Your task to perform on an android device: Open the calendar and show me this week's events Image 0: 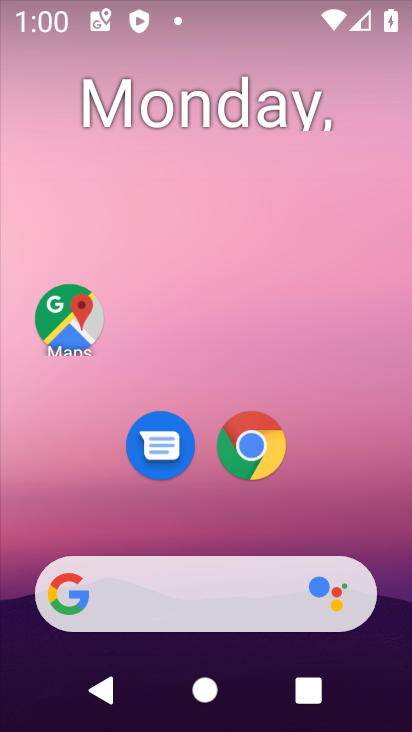
Step 0: drag from (329, 509) to (328, 153)
Your task to perform on an android device: Open the calendar and show me this week's events Image 1: 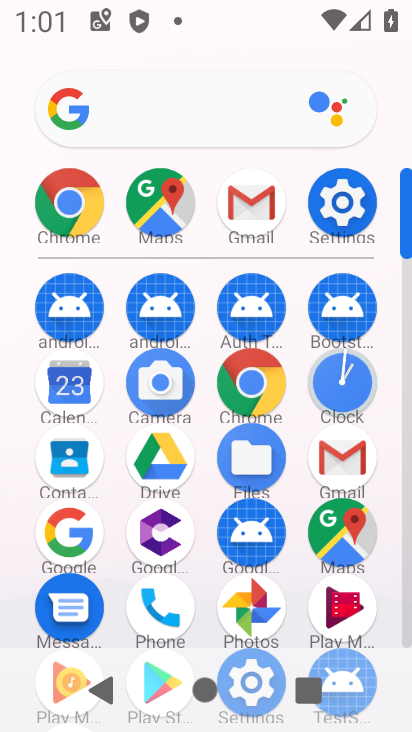
Step 1: click (73, 388)
Your task to perform on an android device: Open the calendar and show me this week's events Image 2: 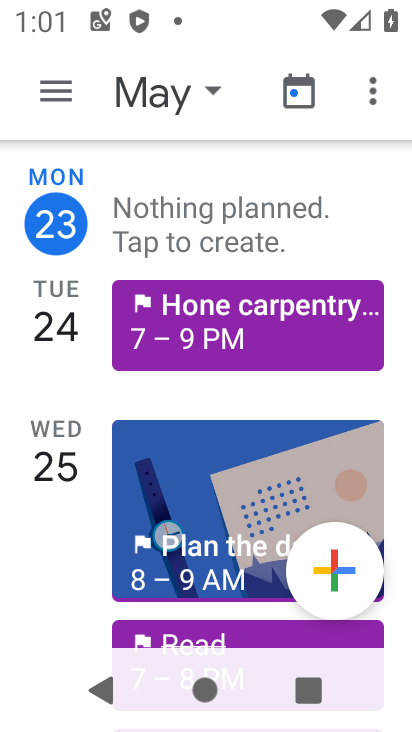
Step 2: drag from (136, 566) to (200, 463)
Your task to perform on an android device: Open the calendar and show me this week's events Image 3: 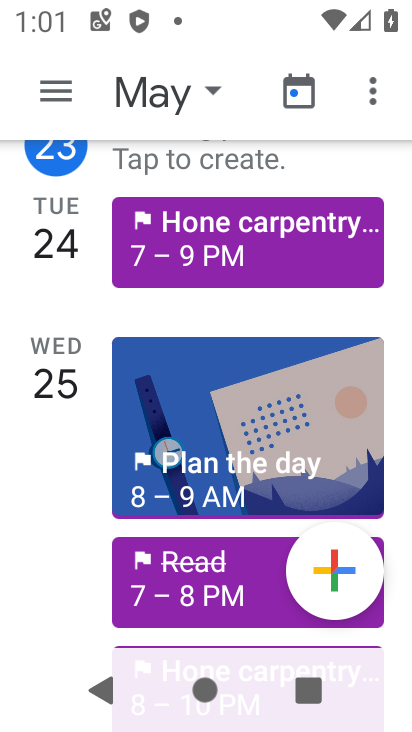
Step 3: drag from (132, 500) to (244, 351)
Your task to perform on an android device: Open the calendar and show me this week's events Image 4: 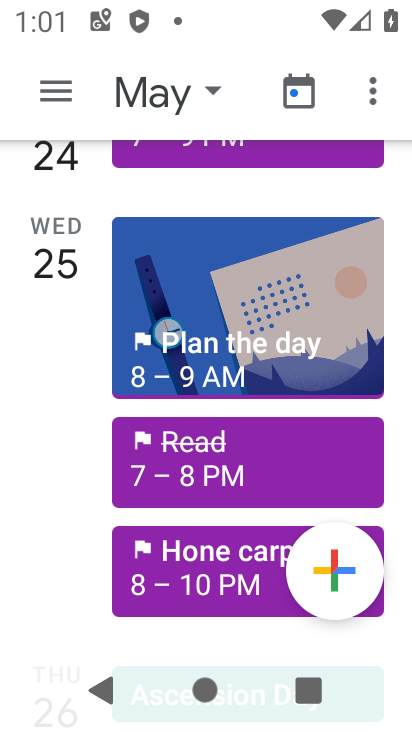
Step 4: drag from (175, 501) to (278, 379)
Your task to perform on an android device: Open the calendar and show me this week's events Image 5: 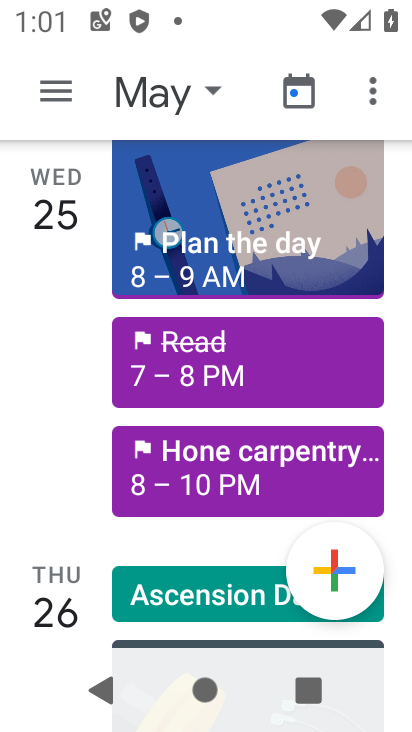
Step 5: drag from (149, 598) to (275, 362)
Your task to perform on an android device: Open the calendar and show me this week's events Image 6: 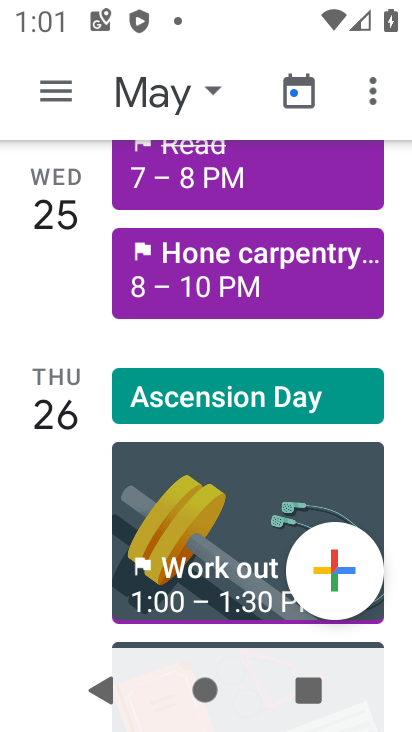
Step 6: drag from (201, 513) to (273, 371)
Your task to perform on an android device: Open the calendar and show me this week's events Image 7: 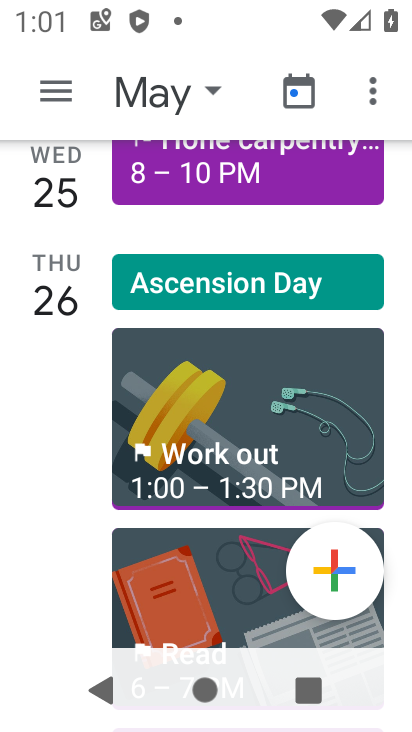
Step 7: drag from (193, 553) to (258, 265)
Your task to perform on an android device: Open the calendar and show me this week's events Image 8: 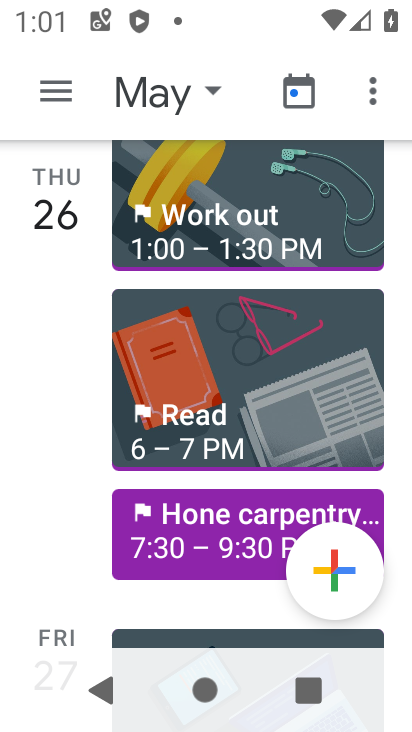
Step 8: drag from (166, 515) to (280, 349)
Your task to perform on an android device: Open the calendar and show me this week's events Image 9: 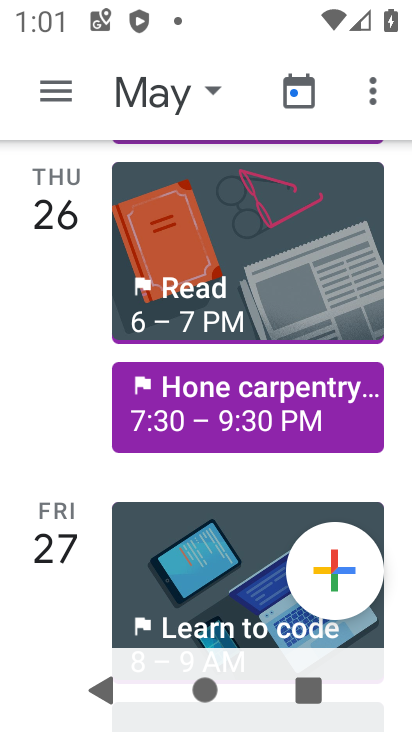
Step 9: drag from (187, 531) to (299, 352)
Your task to perform on an android device: Open the calendar and show me this week's events Image 10: 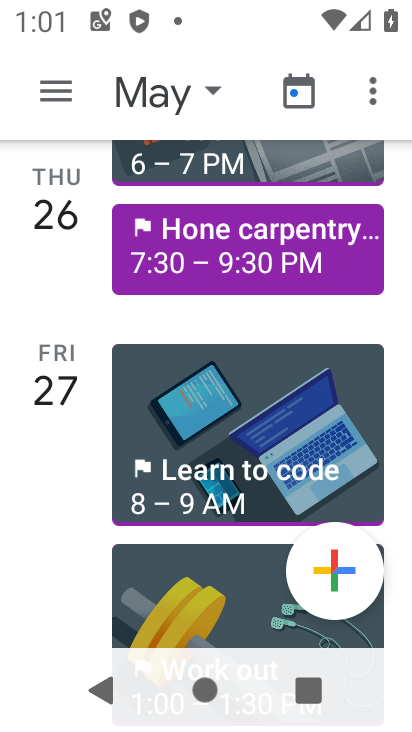
Step 10: drag from (202, 552) to (298, 343)
Your task to perform on an android device: Open the calendar and show me this week's events Image 11: 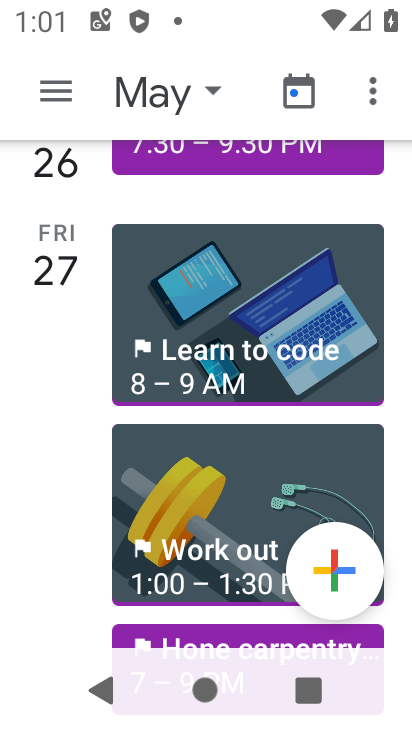
Step 11: click (255, 417)
Your task to perform on an android device: Open the calendar and show me this week's events Image 12: 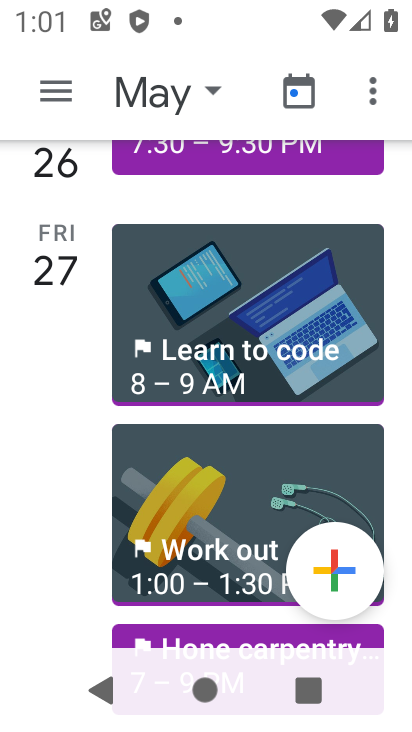
Step 12: task complete